Your task to perform on an android device: Open Yahoo.com Image 0: 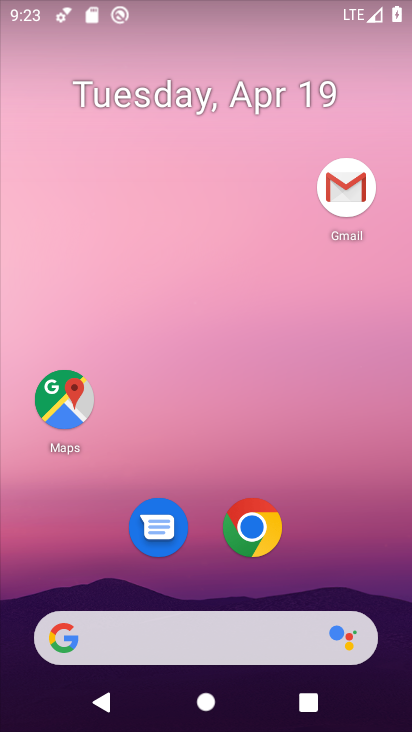
Step 0: drag from (361, 514) to (372, 98)
Your task to perform on an android device: Open Yahoo.com Image 1: 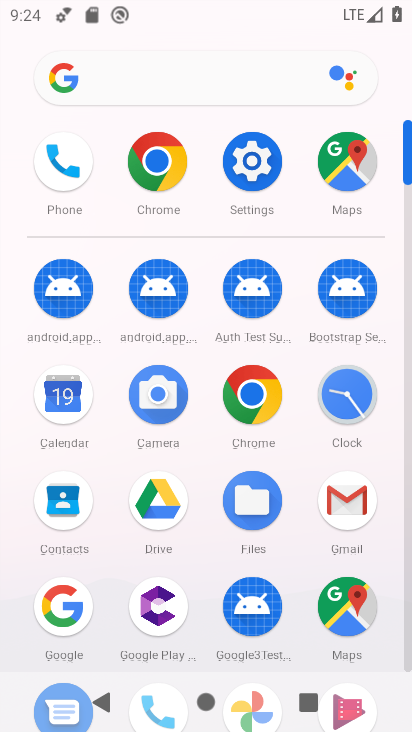
Step 1: click (247, 384)
Your task to perform on an android device: Open Yahoo.com Image 2: 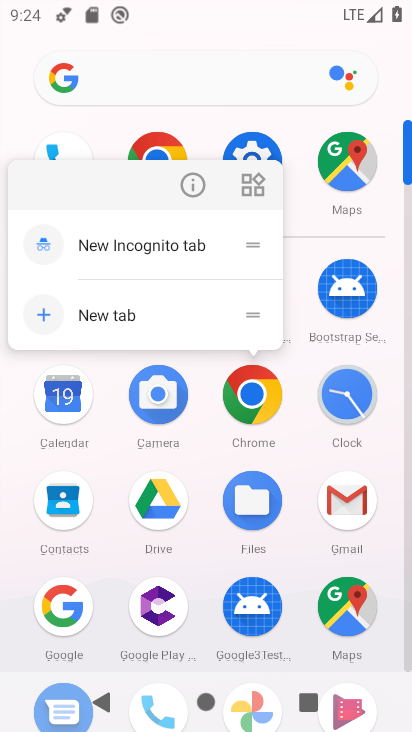
Step 2: click (252, 404)
Your task to perform on an android device: Open Yahoo.com Image 3: 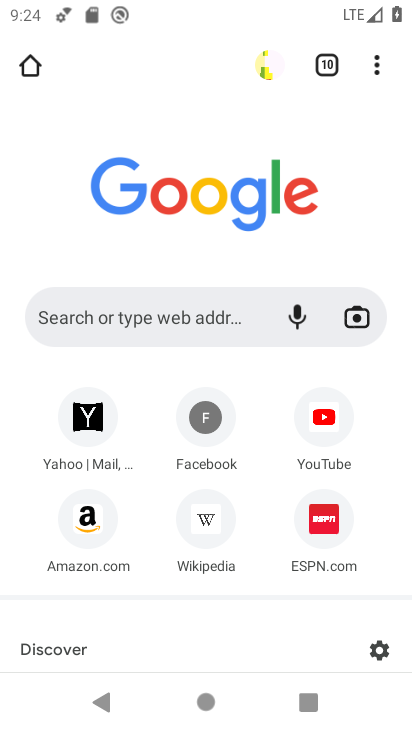
Step 3: click (219, 321)
Your task to perform on an android device: Open Yahoo.com Image 4: 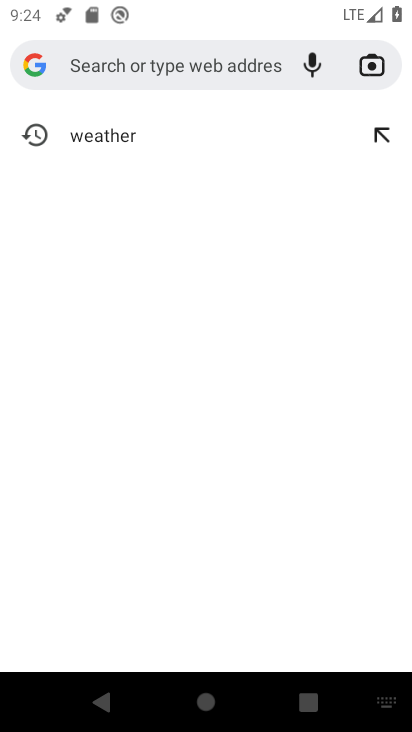
Step 4: type "yahoo.com"
Your task to perform on an android device: Open Yahoo.com Image 5: 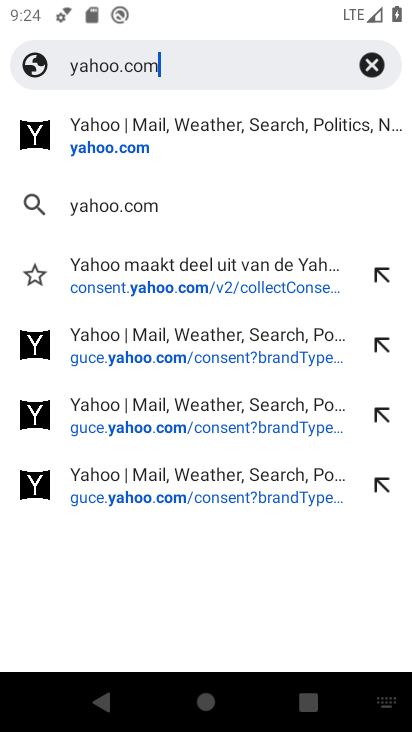
Step 5: click (146, 143)
Your task to perform on an android device: Open Yahoo.com Image 6: 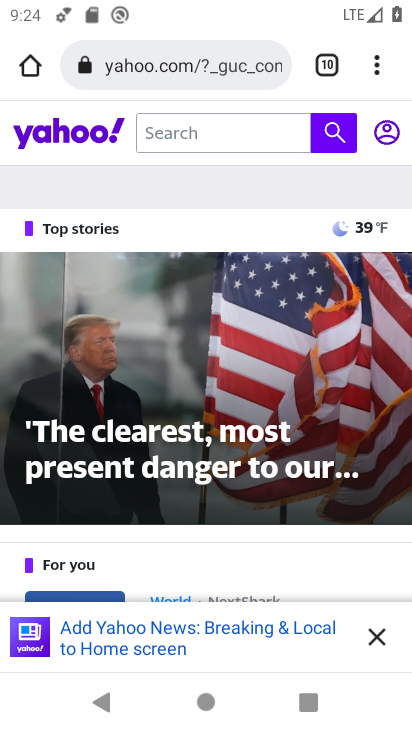
Step 6: task complete